Your task to perform on an android device: turn on translation in the chrome app Image 0: 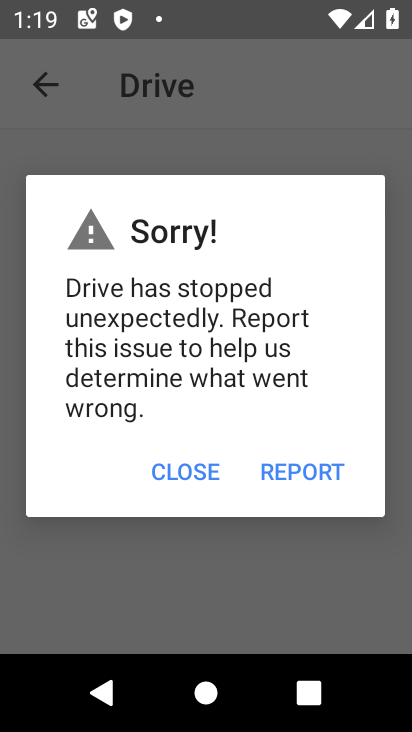
Step 0: press home button
Your task to perform on an android device: turn on translation in the chrome app Image 1: 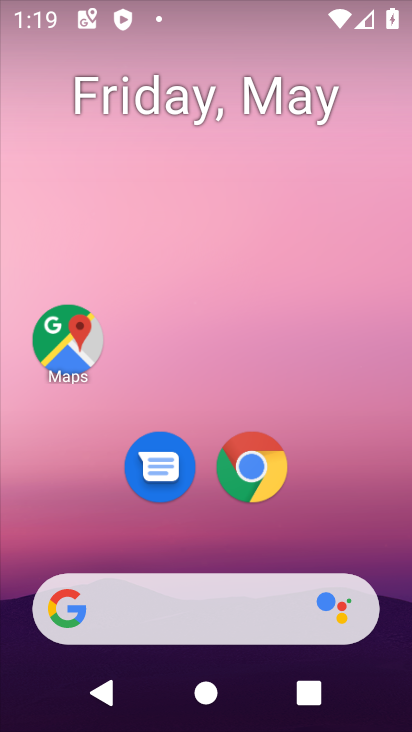
Step 1: click (248, 463)
Your task to perform on an android device: turn on translation in the chrome app Image 2: 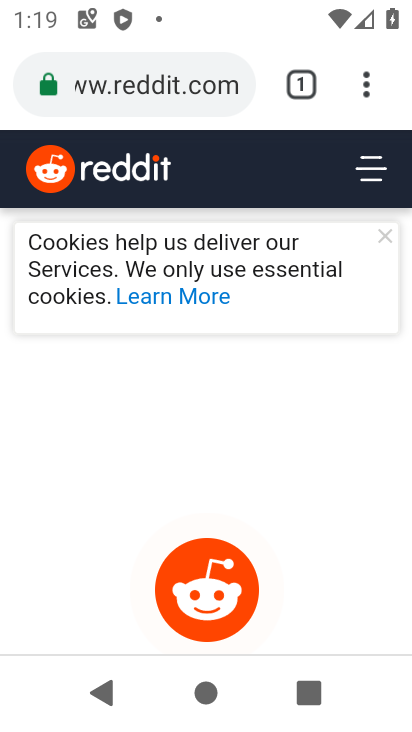
Step 2: click (367, 85)
Your task to perform on an android device: turn on translation in the chrome app Image 3: 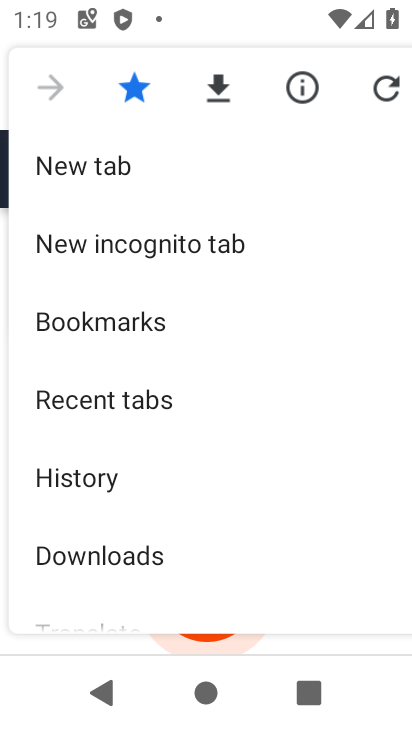
Step 3: drag from (134, 518) to (190, 415)
Your task to perform on an android device: turn on translation in the chrome app Image 4: 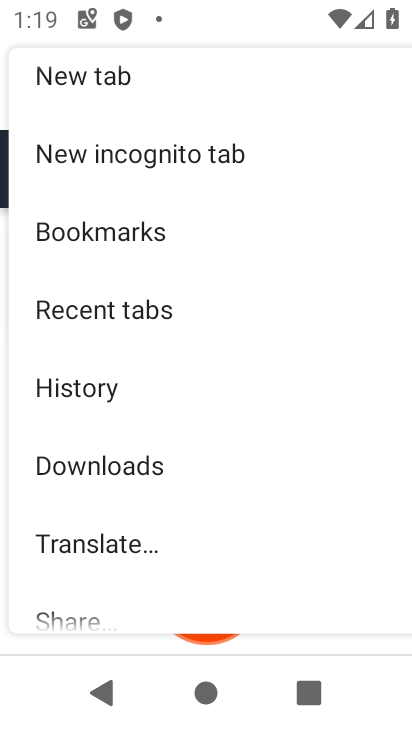
Step 4: drag from (150, 510) to (196, 419)
Your task to perform on an android device: turn on translation in the chrome app Image 5: 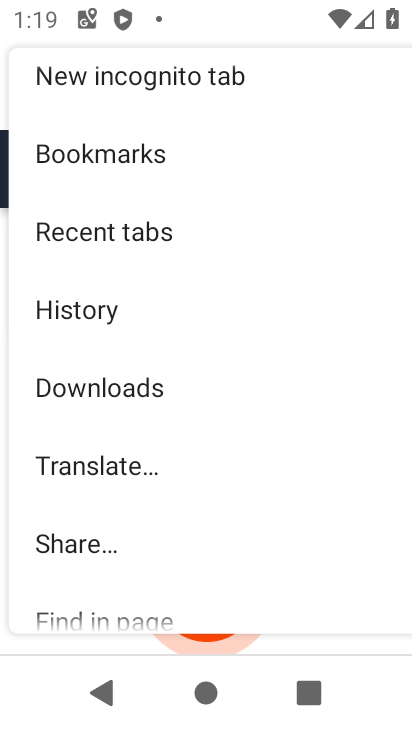
Step 5: drag from (154, 569) to (262, 445)
Your task to perform on an android device: turn on translation in the chrome app Image 6: 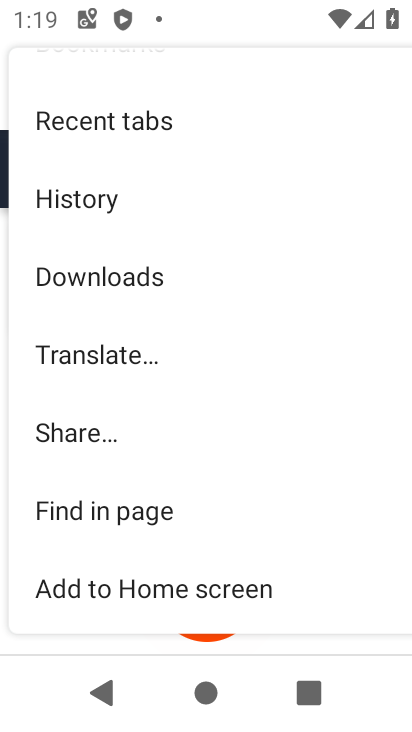
Step 6: drag from (188, 557) to (288, 411)
Your task to perform on an android device: turn on translation in the chrome app Image 7: 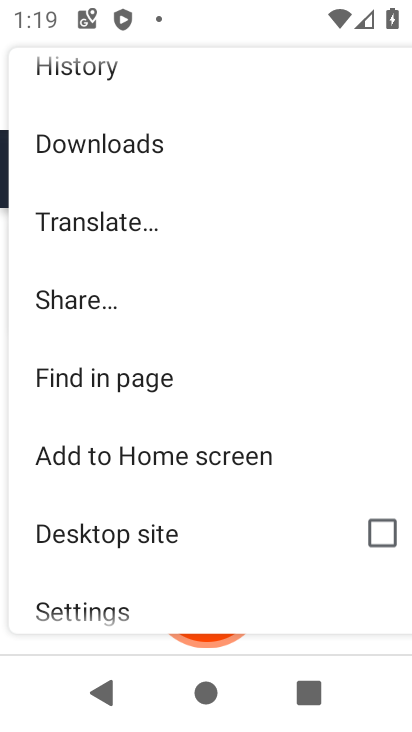
Step 7: drag from (209, 596) to (343, 365)
Your task to perform on an android device: turn on translation in the chrome app Image 8: 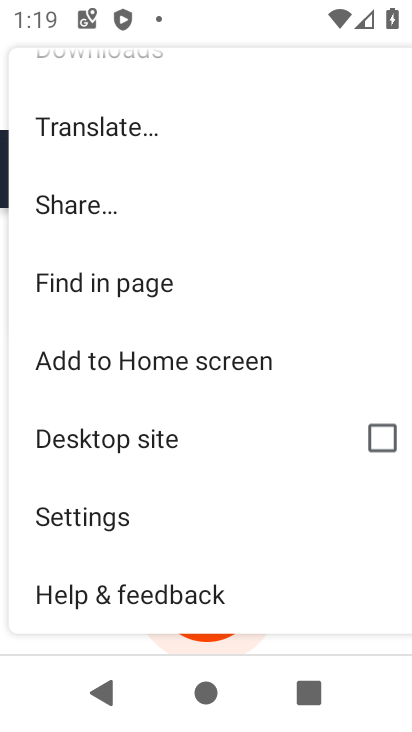
Step 8: click (79, 513)
Your task to perform on an android device: turn on translation in the chrome app Image 9: 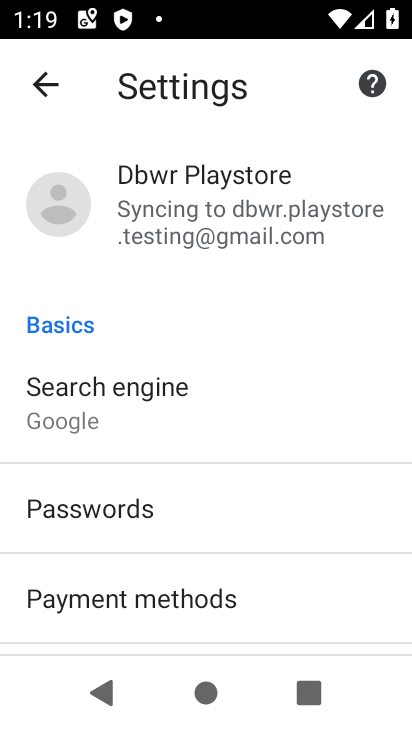
Step 9: drag from (177, 518) to (246, 383)
Your task to perform on an android device: turn on translation in the chrome app Image 10: 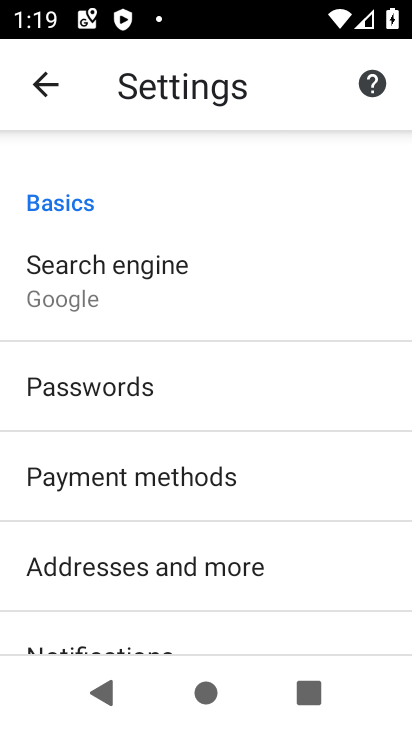
Step 10: drag from (177, 536) to (290, 362)
Your task to perform on an android device: turn on translation in the chrome app Image 11: 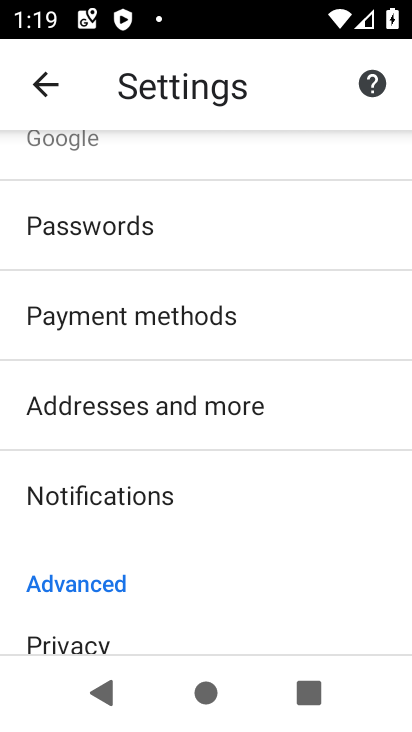
Step 11: drag from (195, 533) to (303, 372)
Your task to perform on an android device: turn on translation in the chrome app Image 12: 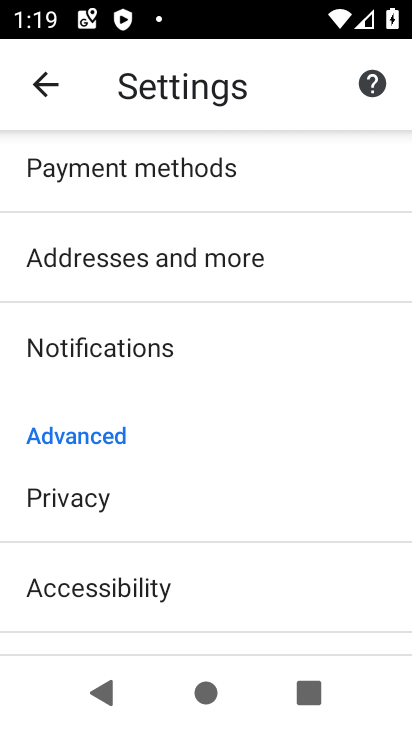
Step 12: drag from (181, 532) to (297, 394)
Your task to perform on an android device: turn on translation in the chrome app Image 13: 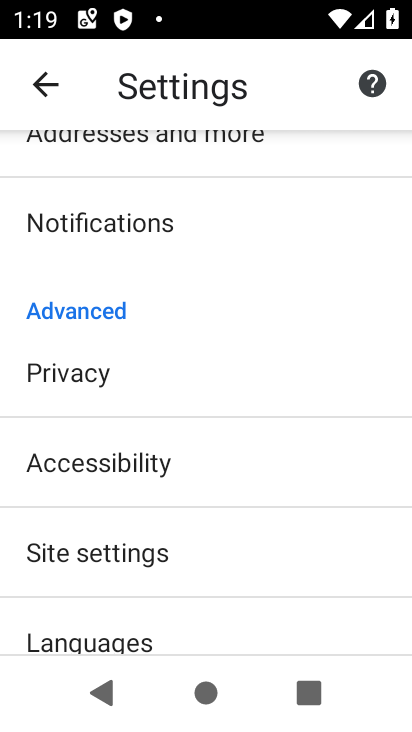
Step 13: drag from (206, 566) to (308, 424)
Your task to perform on an android device: turn on translation in the chrome app Image 14: 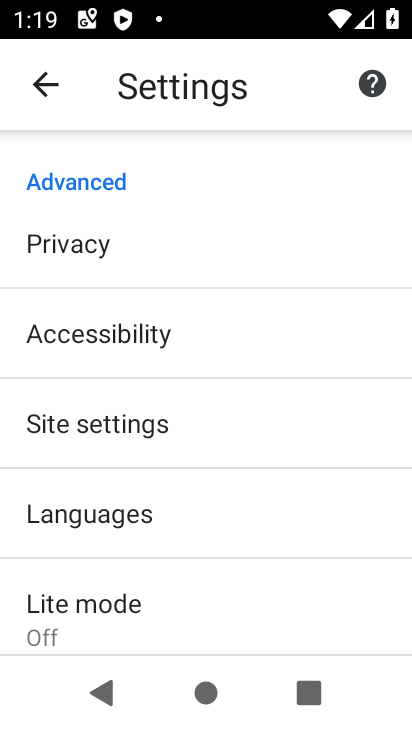
Step 14: drag from (147, 572) to (243, 434)
Your task to perform on an android device: turn on translation in the chrome app Image 15: 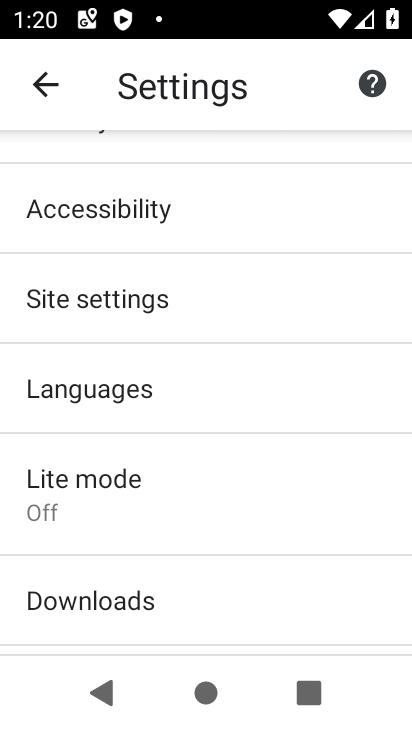
Step 15: click (139, 389)
Your task to perform on an android device: turn on translation in the chrome app Image 16: 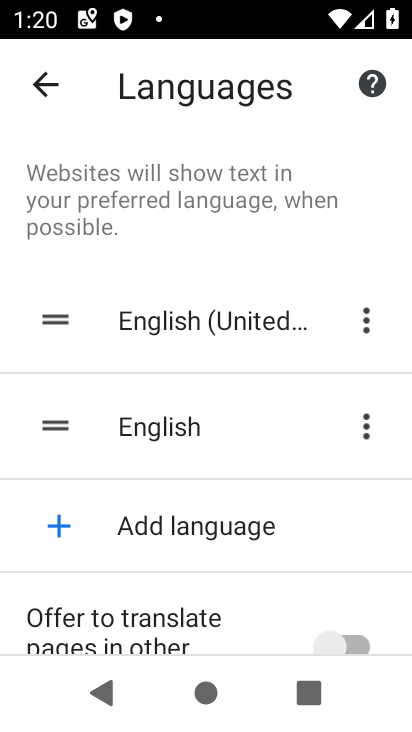
Step 16: drag from (188, 571) to (267, 449)
Your task to perform on an android device: turn on translation in the chrome app Image 17: 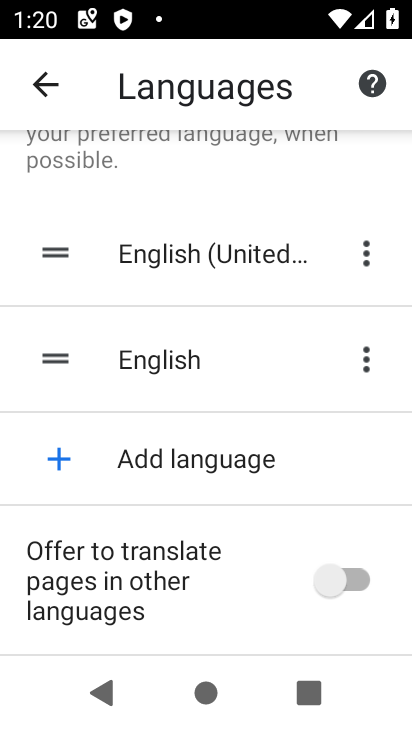
Step 17: click (339, 582)
Your task to perform on an android device: turn on translation in the chrome app Image 18: 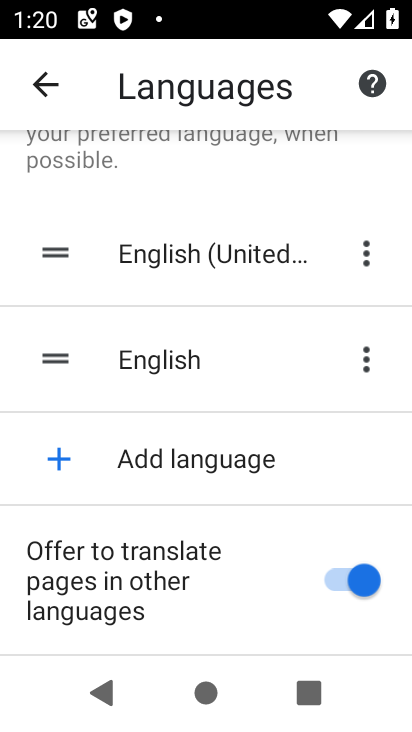
Step 18: task complete